Your task to perform on an android device: turn on data saver in the chrome app Image 0: 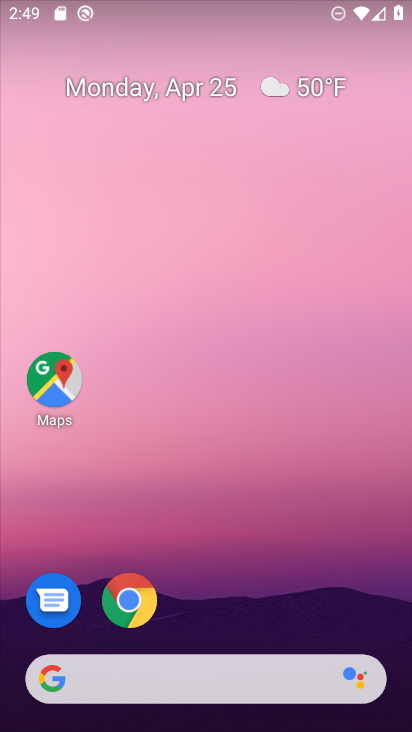
Step 0: drag from (245, 629) to (245, 92)
Your task to perform on an android device: turn on data saver in the chrome app Image 1: 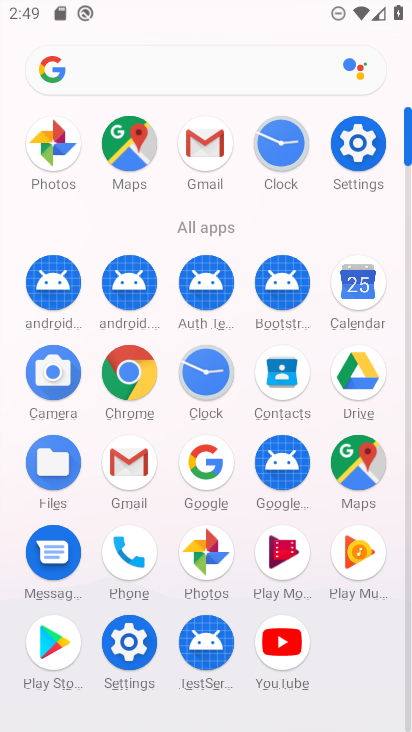
Step 1: click (124, 379)
Your task to perform on an android device: turn on data saver in the chrome app Image 2: 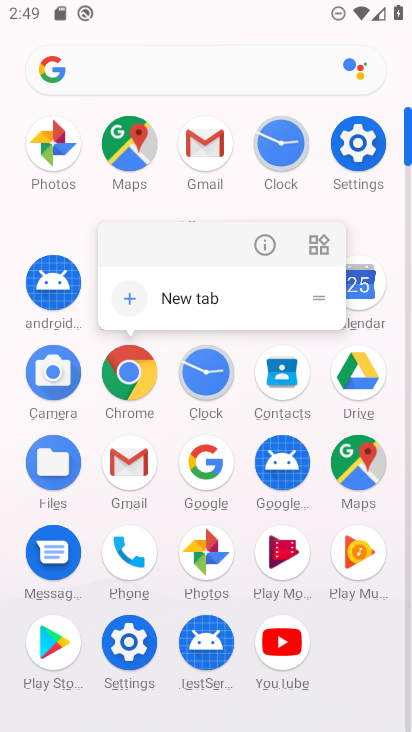
Step 2: click (136, 375)
Your task to perform on an android device: turn on data saver in the chrome app Image 3: 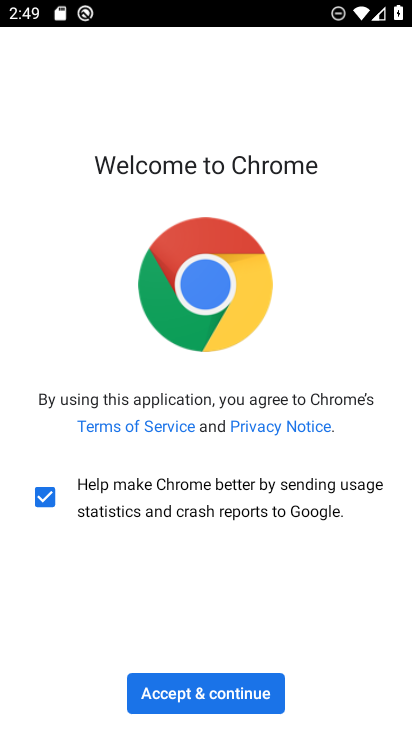
Step 3: click (197, 701)
Your task to perform on an android device: turn on data saver in the chrome app Image 4: 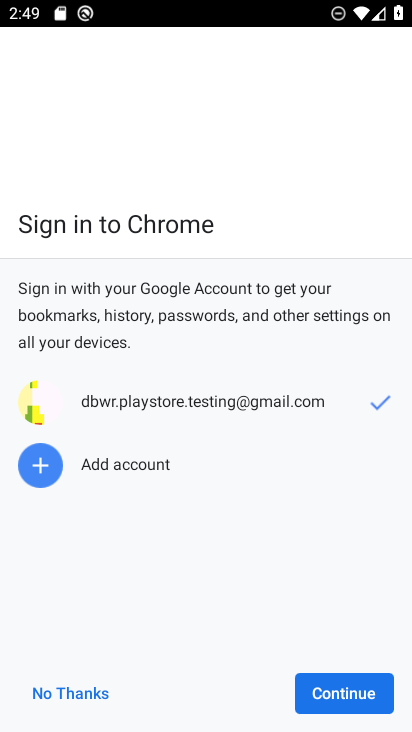
Step 4: click (299, 683)
Your task to perform on an android device: turn on data saver in the chrome app Image 5: 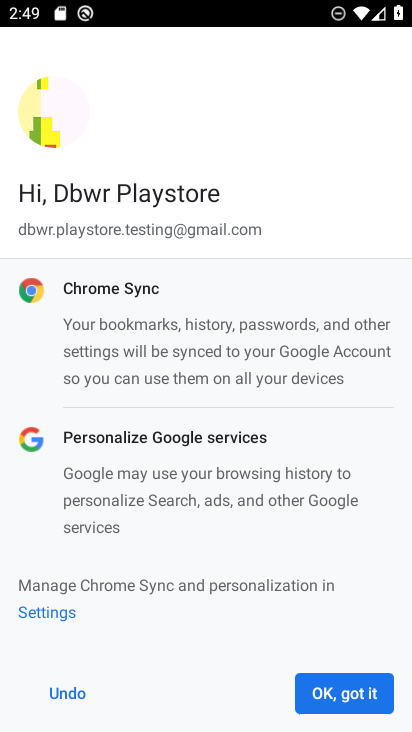
Step 5: click (349, 689)
Your task to perform on an android device: turn on data saver in the chrome app Image 6: 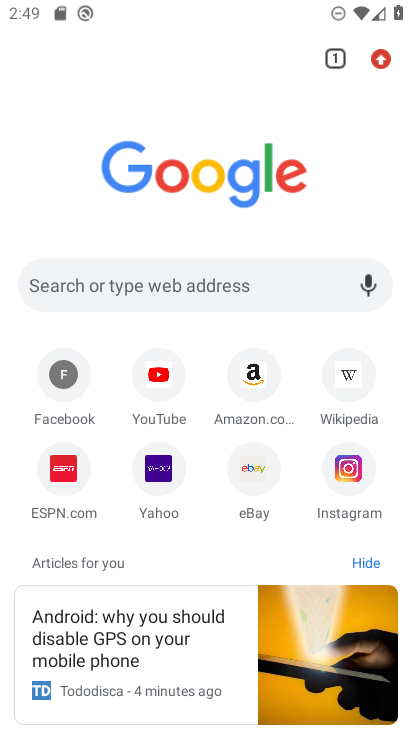
Step 6: click (380, 56)
Your task to perform on an android device: turn on data saver in the chrome app Image 7: 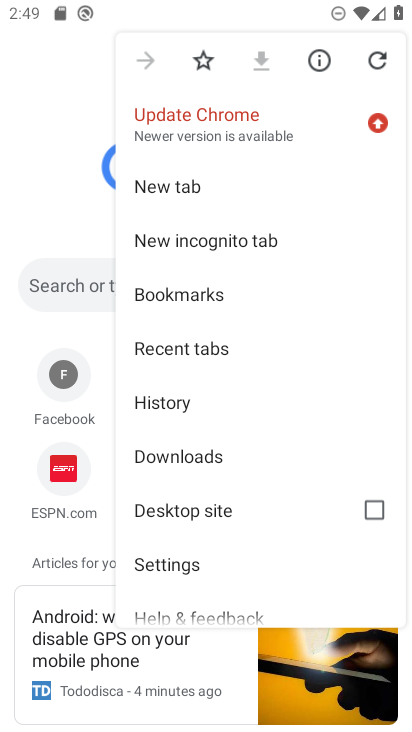
Step 7: click (187, 558)
Your task to perform on an android device: turn on data saver in the chrome app Image 8: 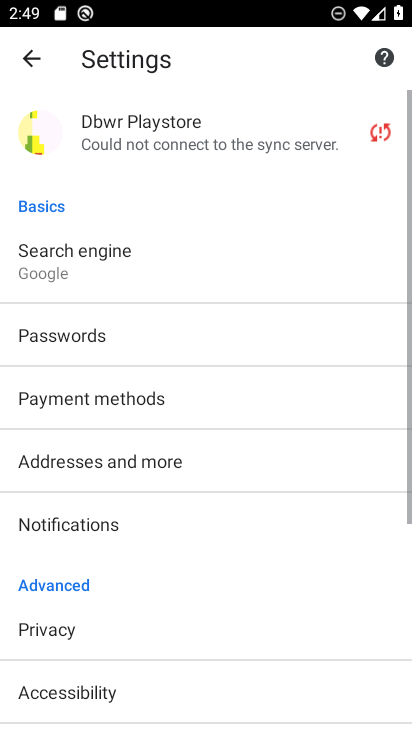
Step 8: drag from (194, 583) to (178, 222)
Your task to perform on an android device: turn on data saver in the chrome app Image 9: 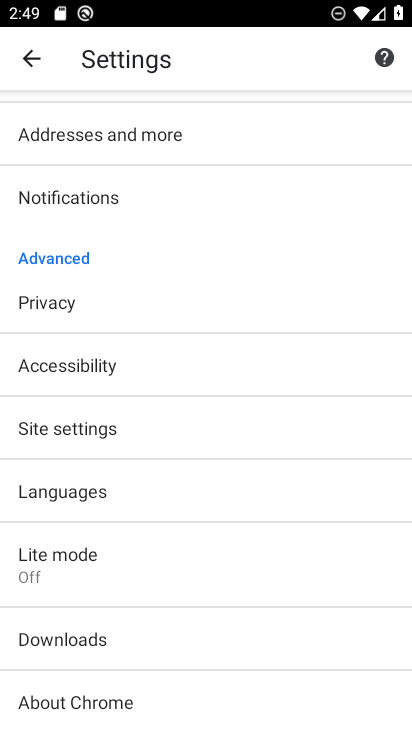
Step 9: click (96, 583)
Your task to perform on an android device: turn on data saver in the chrome app Image 10: 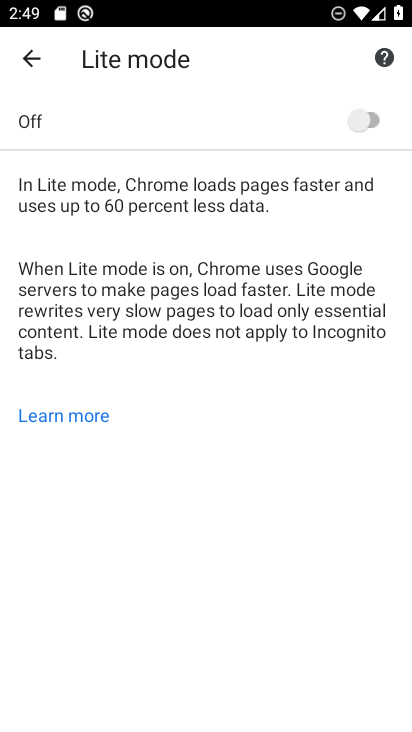
Step 10: click (362, 109)
Your task to perform on an android device: turn on data saver in the chrome app Image 11: 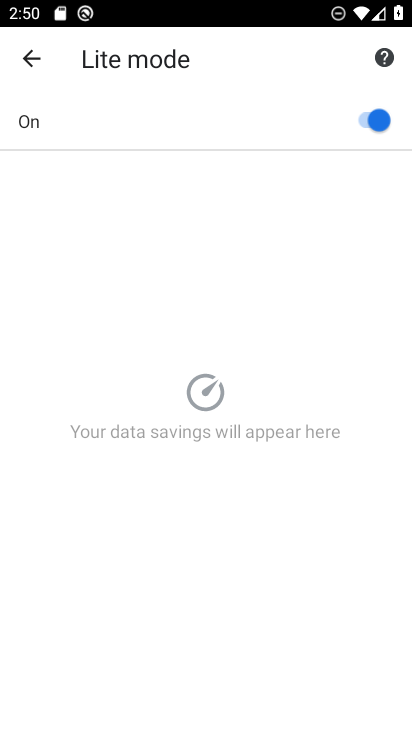
Step 11: task complete